Your task to perform on an android device: Open eBay Image 0: 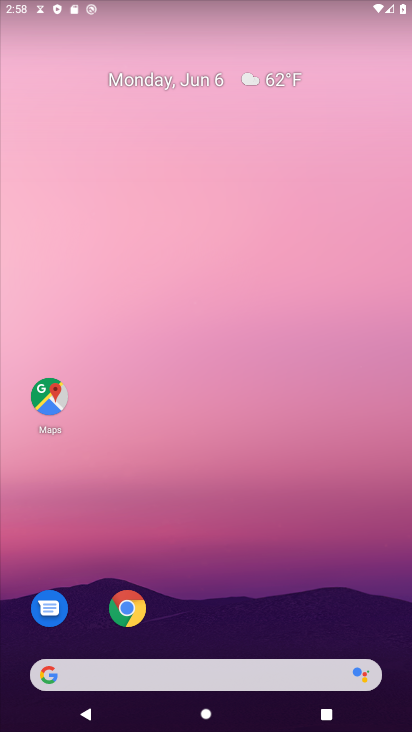
Step 0: click (136, 615)
Your task to perform on an android device: Open eBay Image 1: 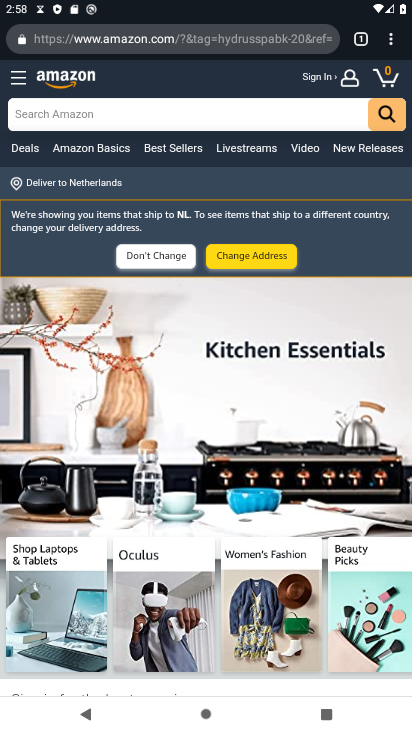
Step 1: click (95, 41)
Your task to perform on an android device: Open eBay Image 2: 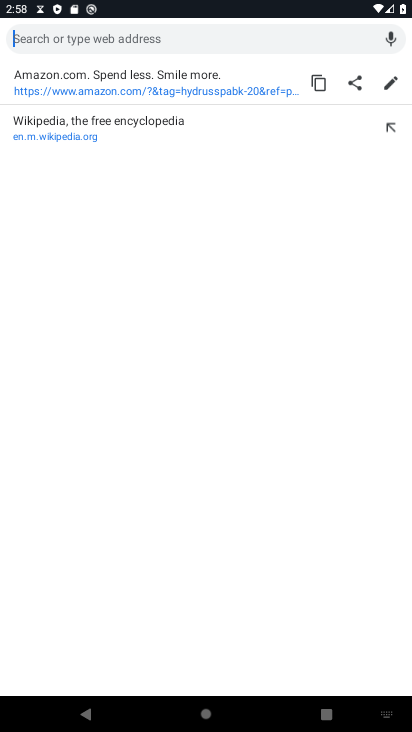
Step 2: type "ebay"
Your task to perform on an android device: Open eBay Image 3: 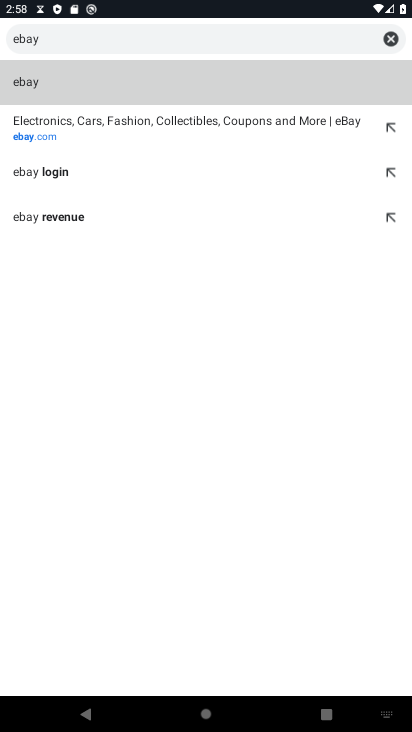
Step 3: click (30, 90)
Your task to perform on an android device: Open eBay Image 4: 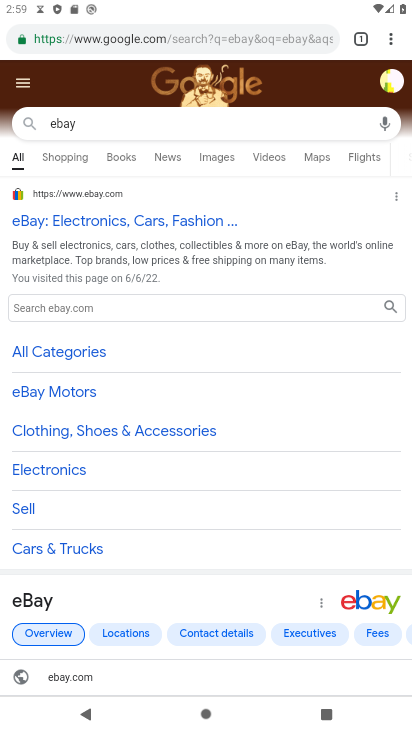
Step 4: click (53, 216)
Your task to perform on an android device: Open eBay Image 5: 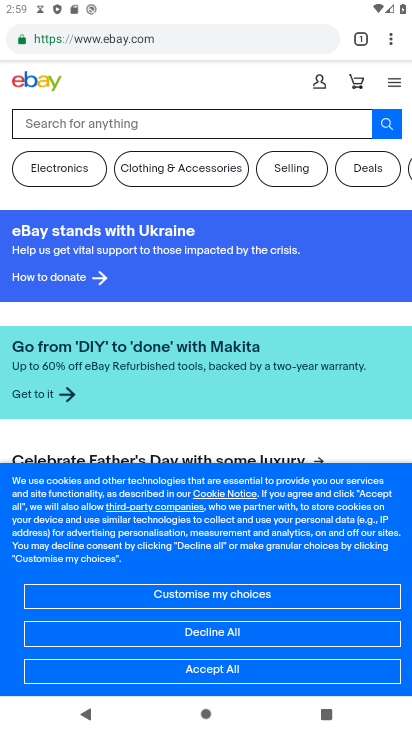
Step 5: task complete